Your task to perform on an android device: What's the weather going to be this weekend? Image 0: 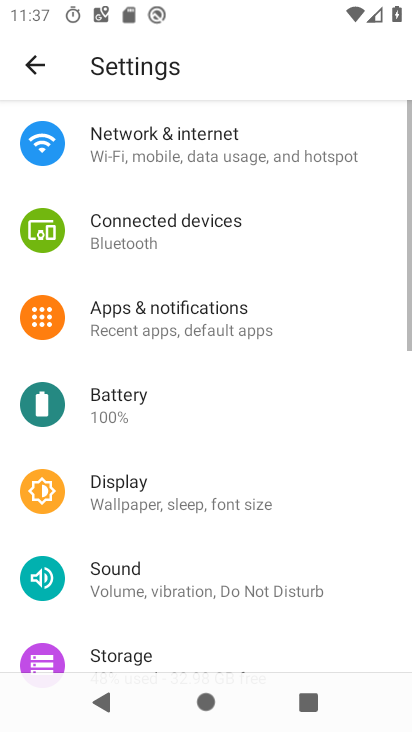
Step 0: press home button
Your task to perform on an android device: What's the weather going to be this weekend? Image 1: 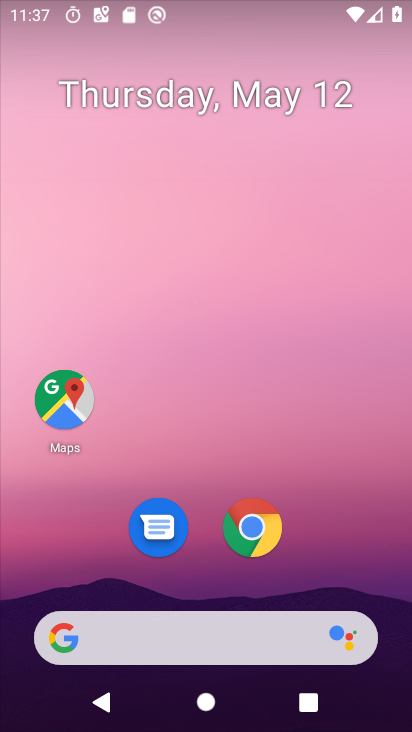
Step 1: drag from (315, 567) to (227, 39)
Your task to perform on an android device: What's the weather going to be this weekend? Image 2: 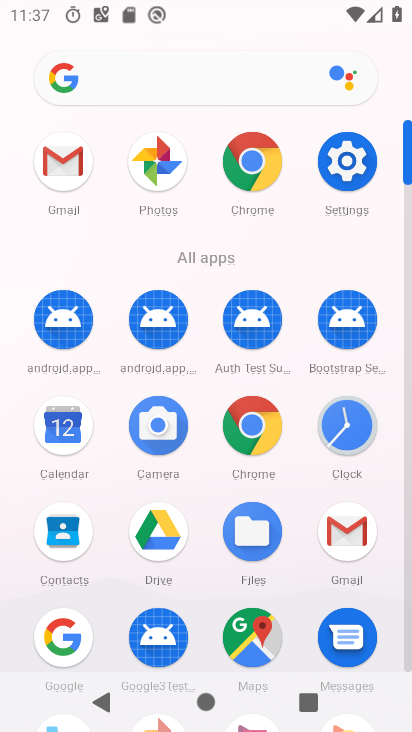
Step 2: click (76, 655)
Your task to perform on an android device: What's the weather going to be this weekend? Image 3: 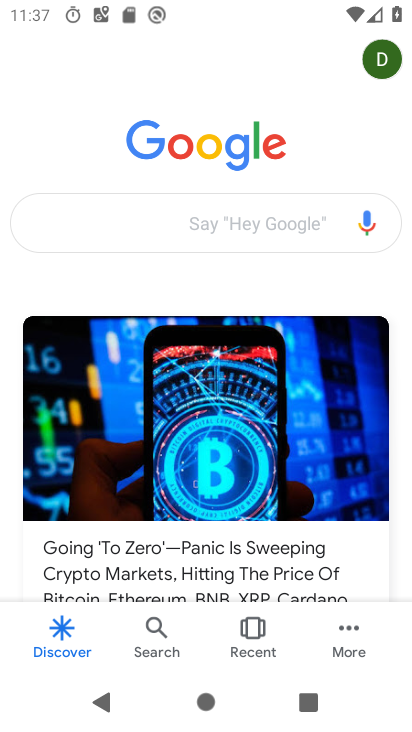
Step 3: click (238, 214)
Your task to perform on an android device: What's the weather going to be this weekend? Image 4: 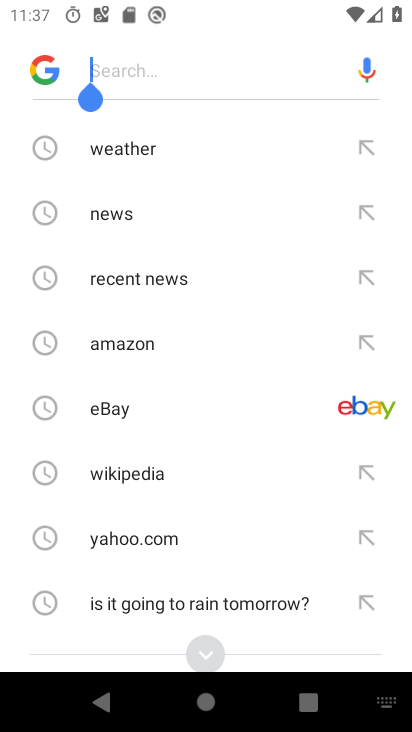
Step 4: click (141, 160)
Your task to perform on an android device: What's the weather going to be this weekend? Image 5: 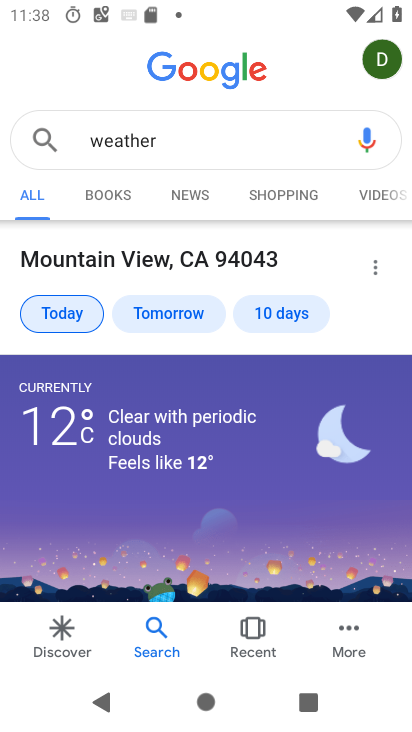
Step 5: click (270, 322)
Your task to perform on an android device: What's the weather going to be this weekend? Image 6: 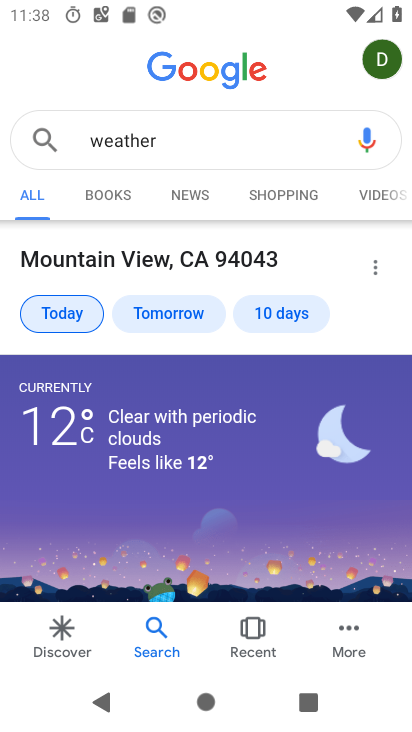
Step 6: click (276, 316)
Your task to perform on an android device: What's the weather going to be this weekend? Image 7: 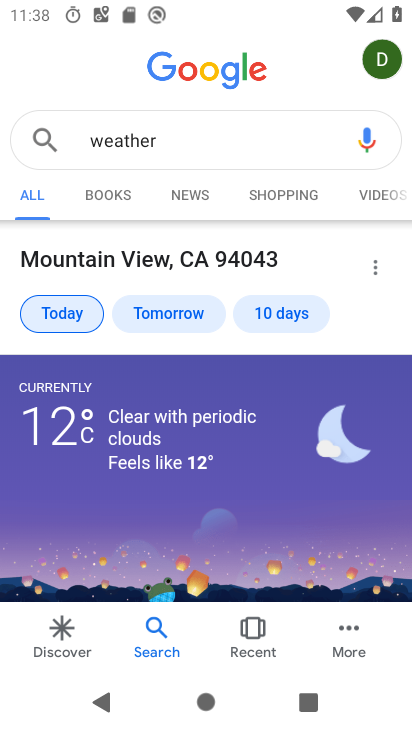
Step 7: click (182, 320)
Your task to perform on an android device: What's the weather going to be this weekend? Image 8: 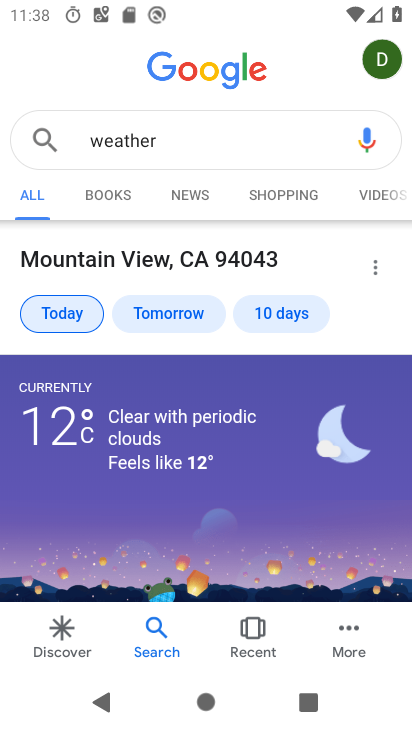
Step 8: click (280, 318)
Your task to perform on an android device: What's the weather going to be this weekend? Image 9: 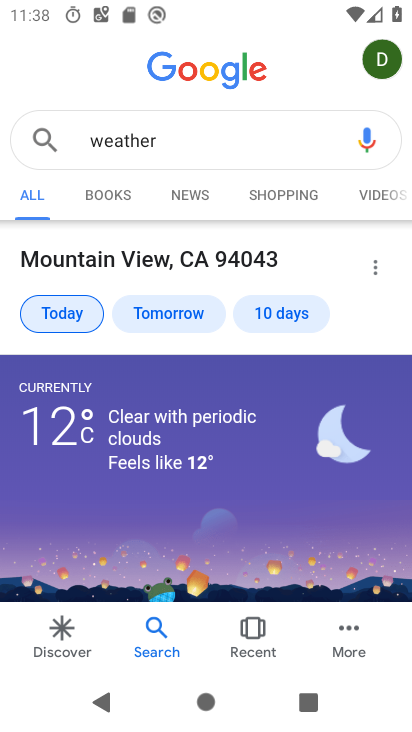
Step 9: task complete